Your task to perform on an android device: Open Reddit.com Image 0: 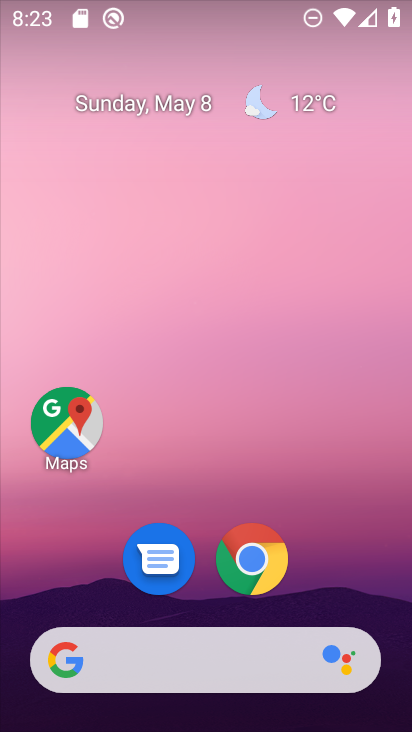
Step 0: click (251, 563)
Your task to perform on an android device: Open Reddit.com Image 1: 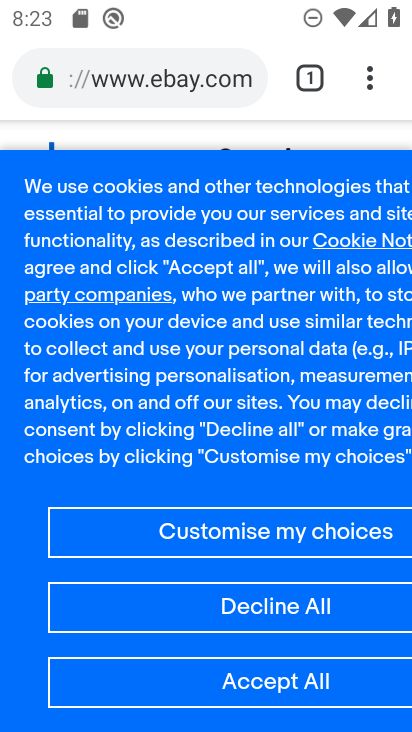
Step 1: click (194, 80)
Your task to perform on an android device: Open Reddit.com Image 2: 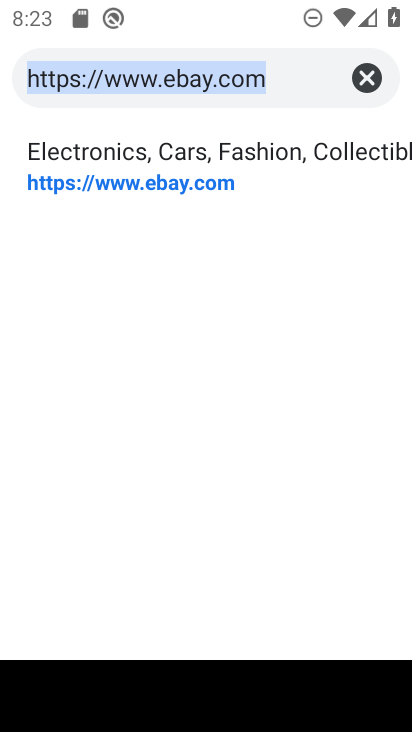
Step 2: click (368, 84)
Your task to perform on an android device: Open Reddit.com Image 3: 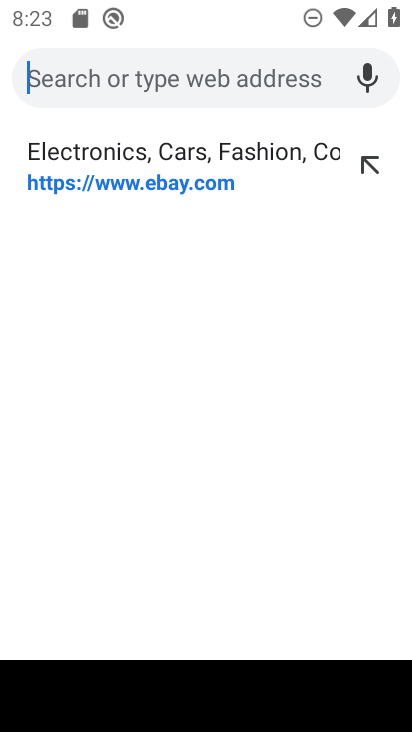
Step 3: type "reddit.com"
Your task to perform on an android device: Open Reddit.com Image 4: 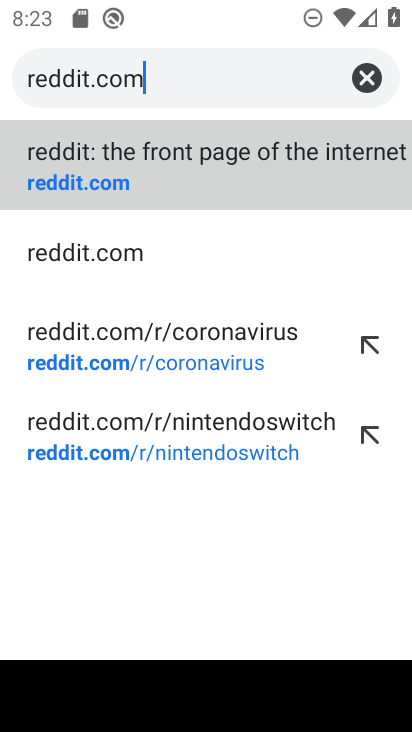
Step 4: click (63, 257)
Your task to perform on an android device: Open Reddit.com Image 5: 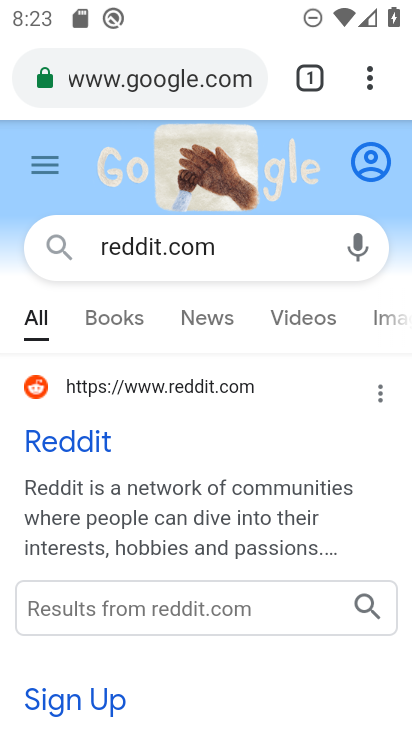
Step 5: click (98, 387)
Your task to perform on an android device: Open Reddit.com Image 6: 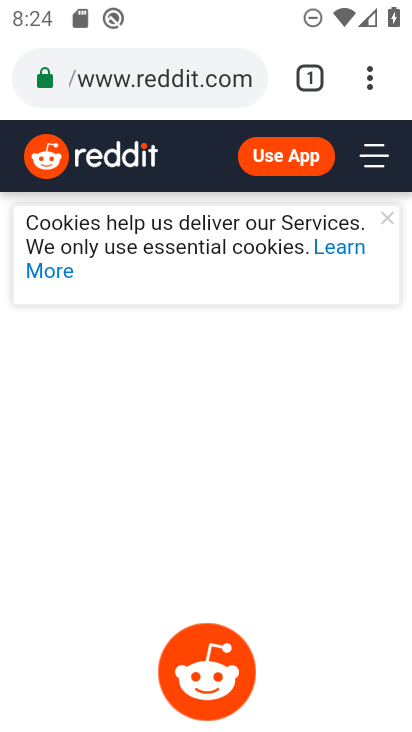
Step 6: task complete